Your task to perform on an android device: Go to internet settings Image 0: 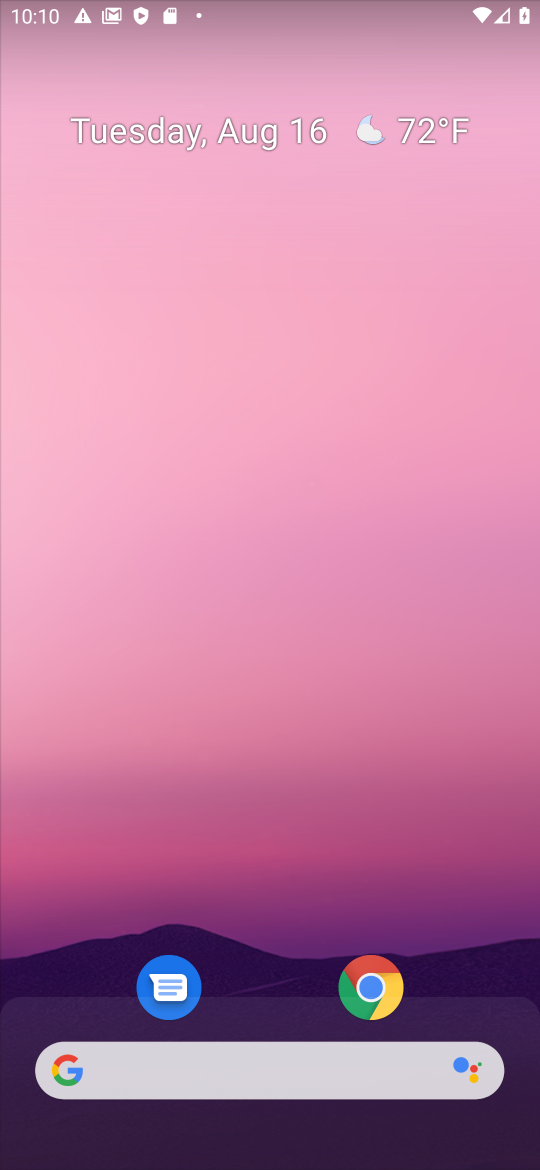
Step 0: drag from (27, 1129) to (65, 690)
Your task to perform on an android device: Go to internet settings Image 1: 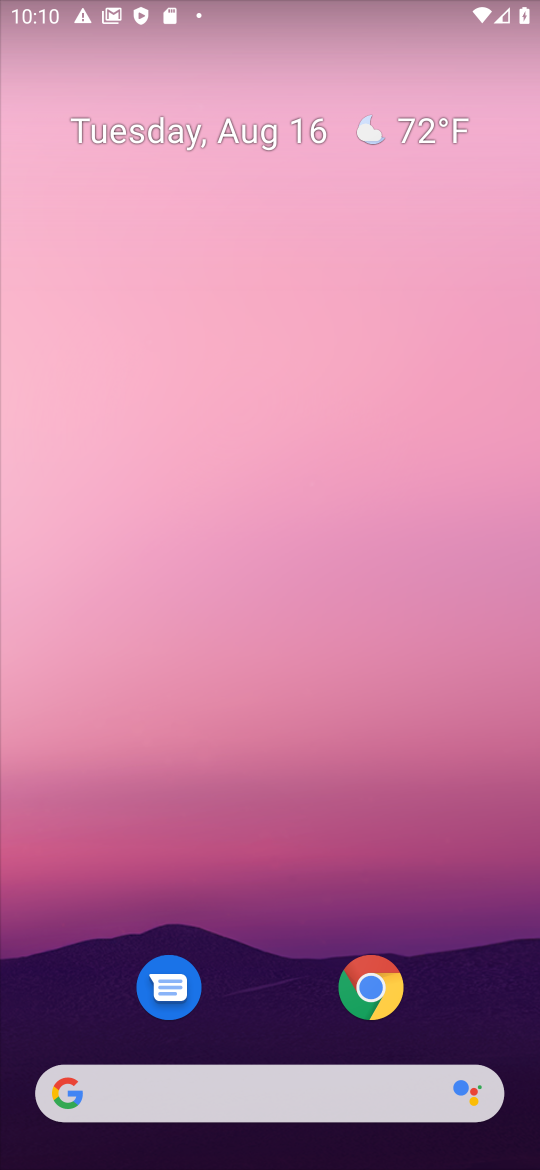
Step 1: drag from (10, 1125) to (346, 383)
Your task to perform on an android device: Go to internet settings Image 2: 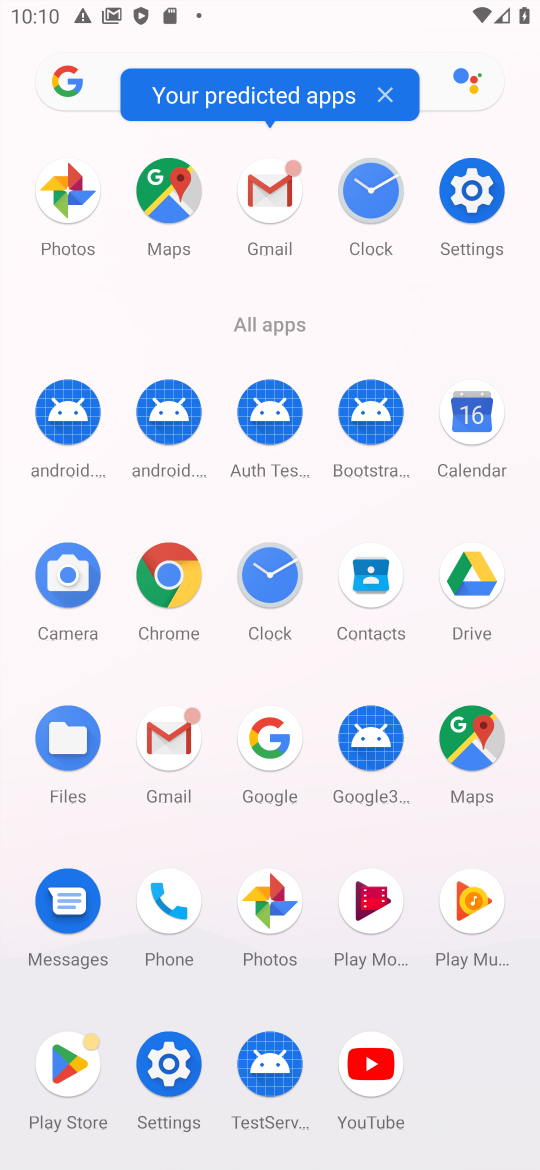
Step 2: click (154, 1051)
Your task to perform on an android device: Go to internet settings Image 3: 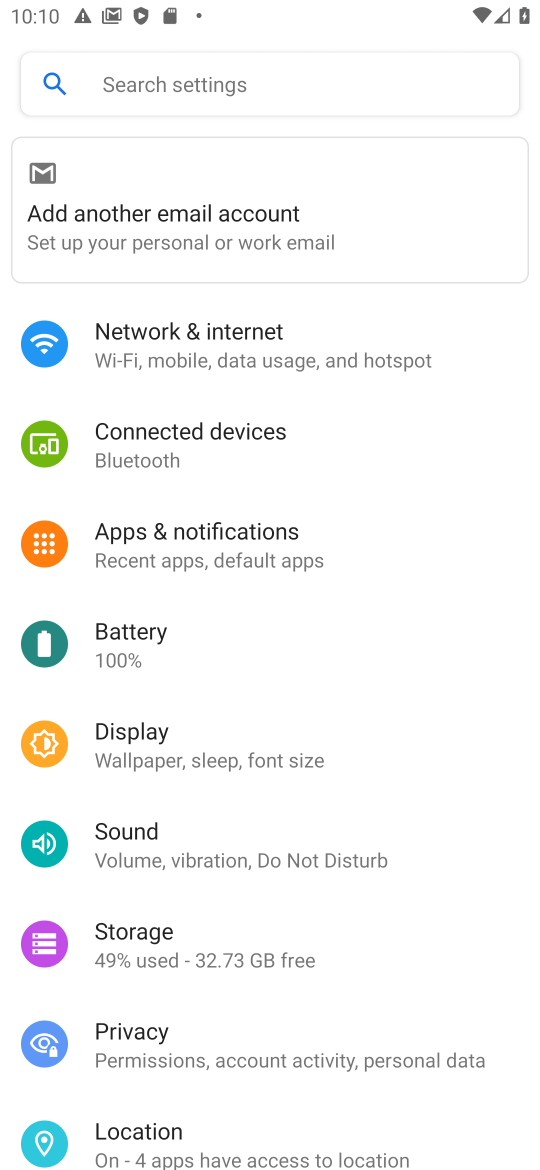
Step 3: click (181, 342)
Your task to perform on an android device: Go to internet settings Image 4: 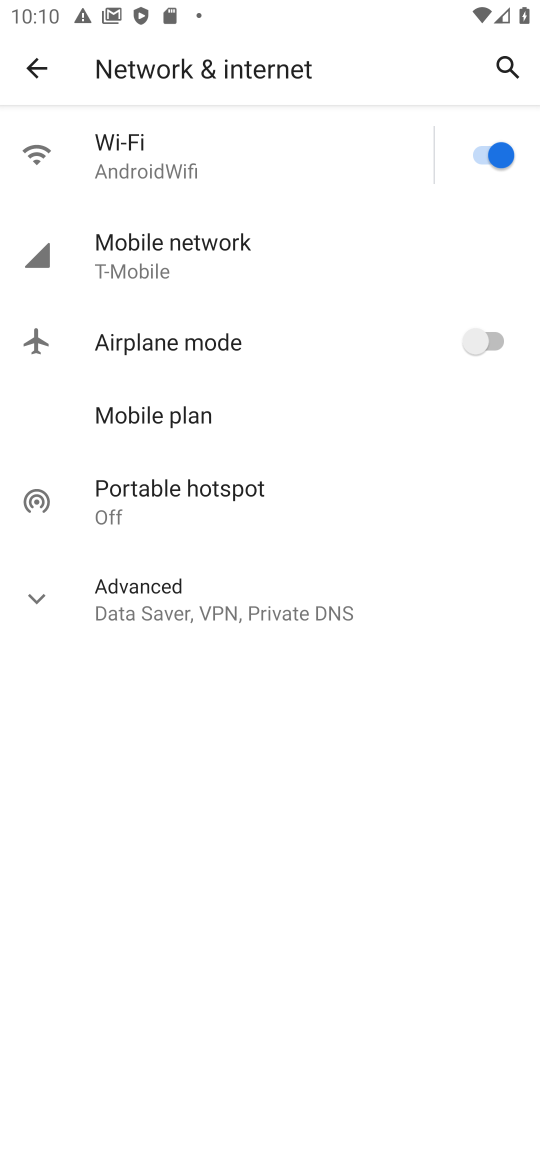
Step 4: task complete